Your task to perform on an android device: Check the weather Image 0: 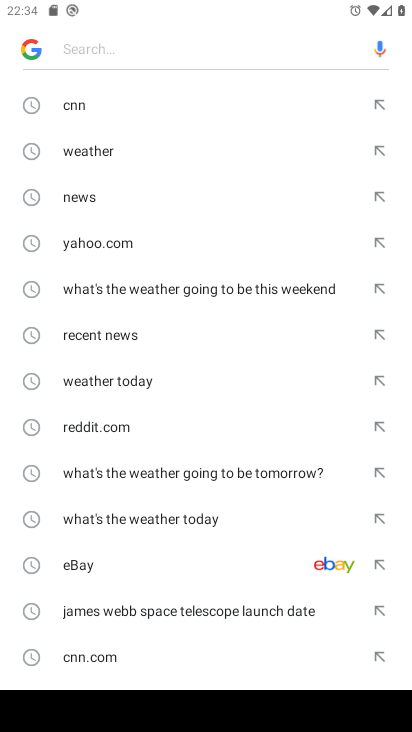
Step 0: click (207, 30)
Your task to perform on an android device: Check the weather Image 1: 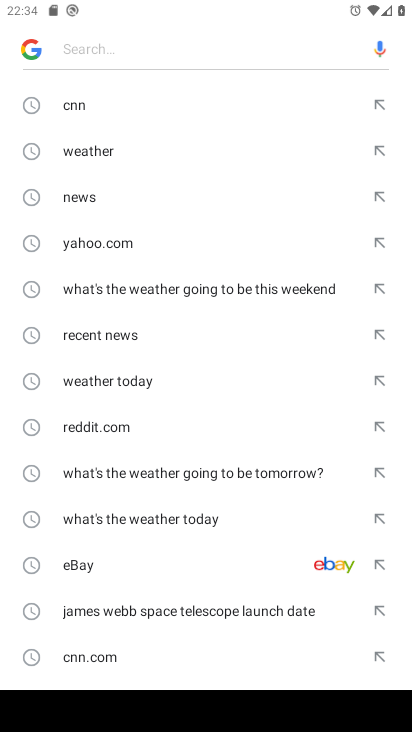
Step 1: click (89, 149)
Your task to perform on an android device: Check the weather Image 2: 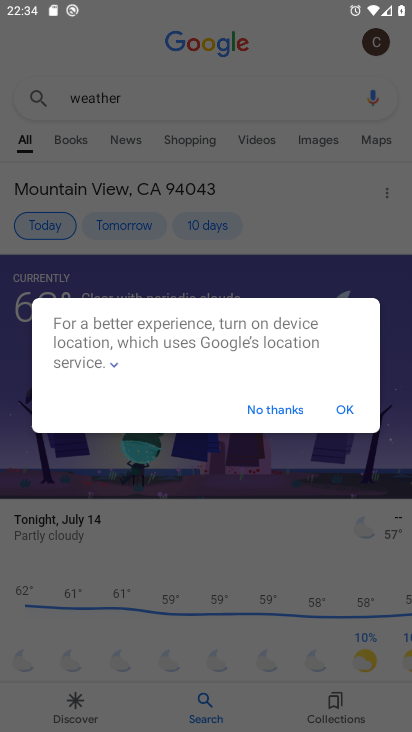
Step 2: click (344, 405)
Your task to perform on an android device: Check the weather Image 3: 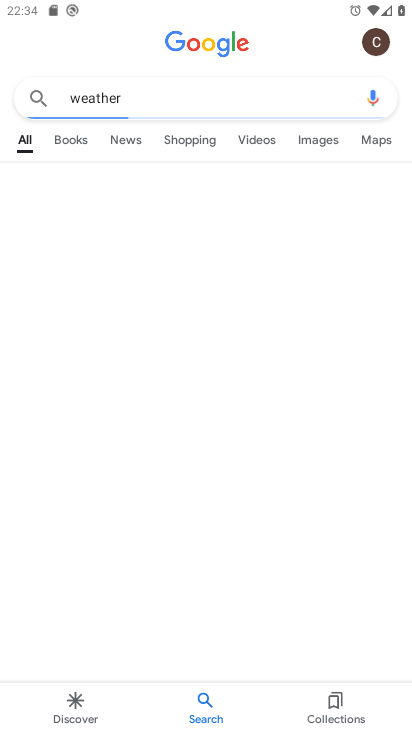
Step 3: task complete